Your task to perform on an android device: set the stopwatch Image 0: 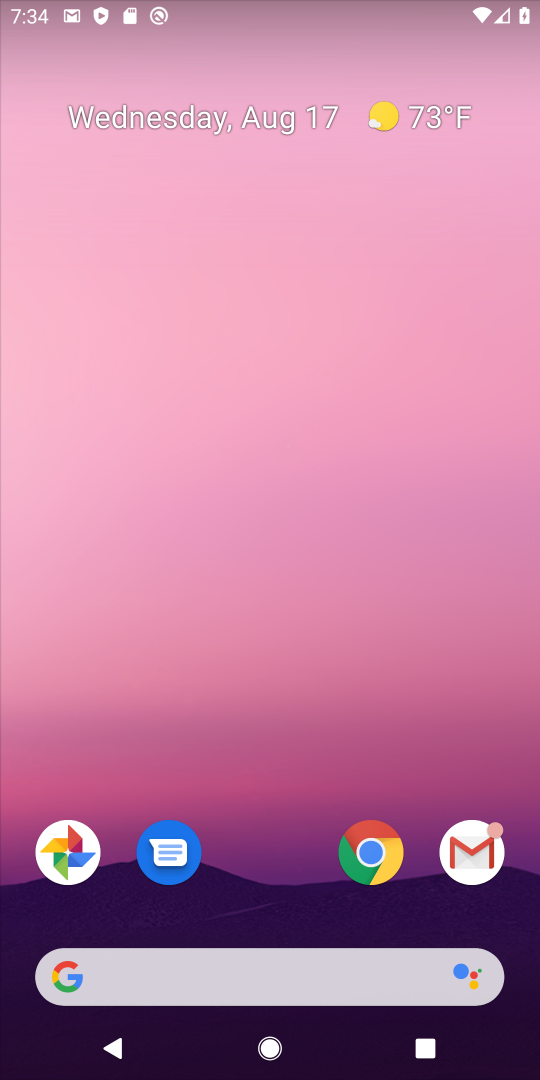
Step 0: drag from (275, 882) to (239, 251)
Your task to perform on an android device: set the stopwatch Image 1: 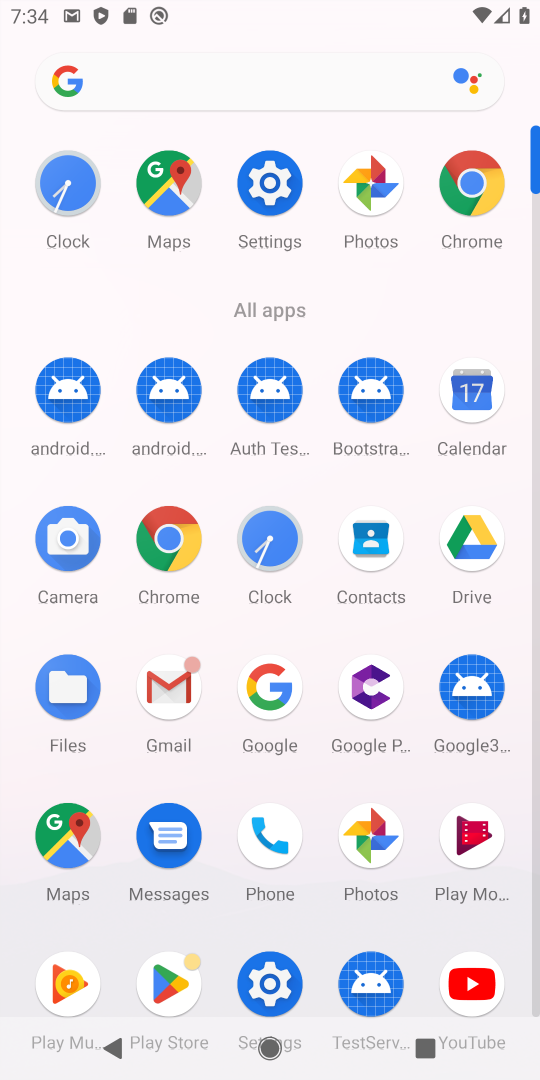
Step 1: click (265, 533)
Your task to perform on an android device: set the stopwatch Image 2: 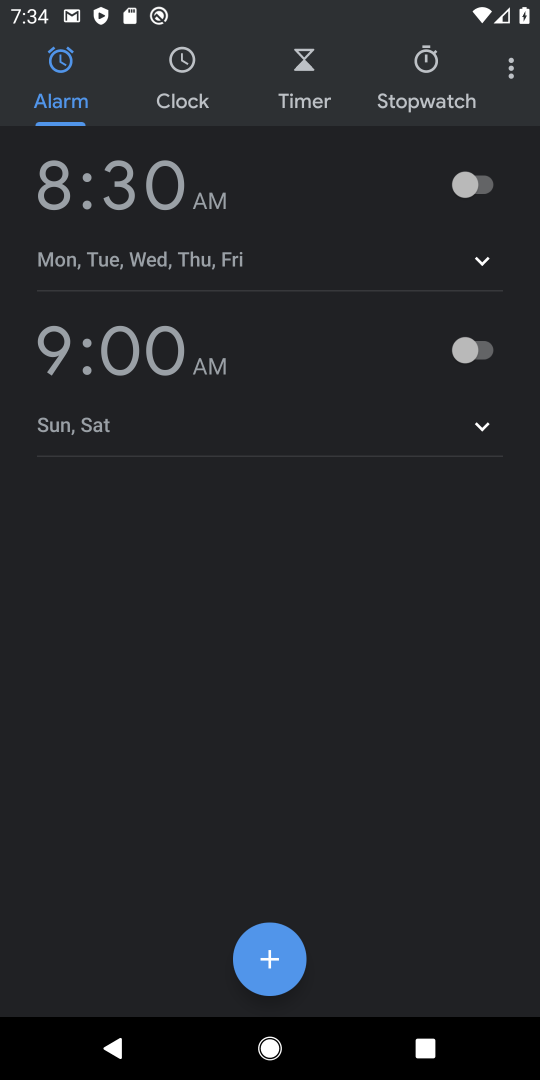
Step 2: click (433, 56)
Your task to perform on an android device: set the stopwatch Image 3: 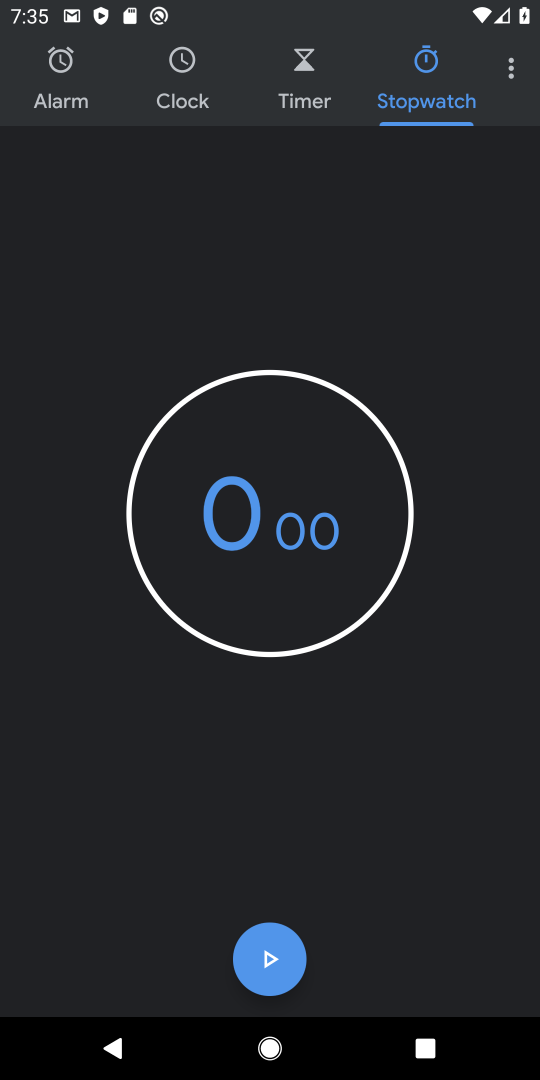
Step 3: task complete